Your task to perform on an android device: find which apps use the phone's location Image 0: 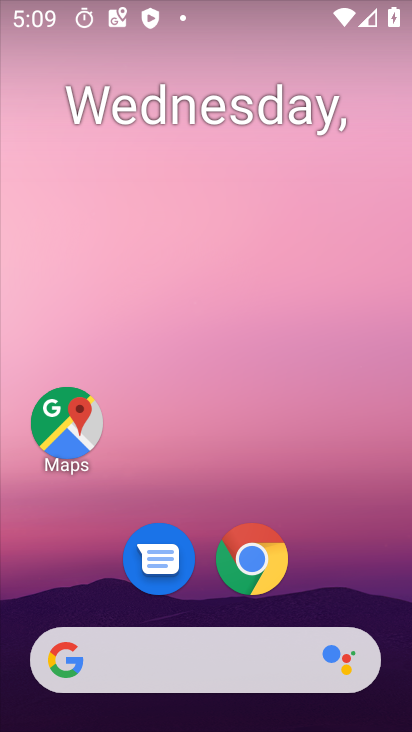
Step 0: drag from (330, 565) to (255, 86)
Your task to perform on an android device: find which apps use the phone's location Image 1: 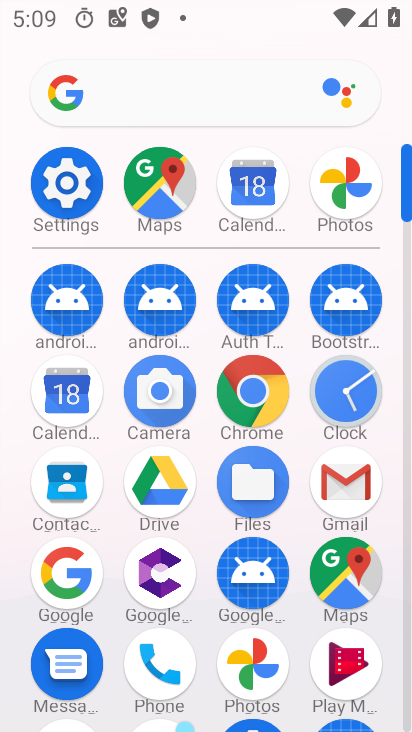
Step 1: click (68, 183)
Your task to perform on an android device: find which apps use the phone's location Image 2: 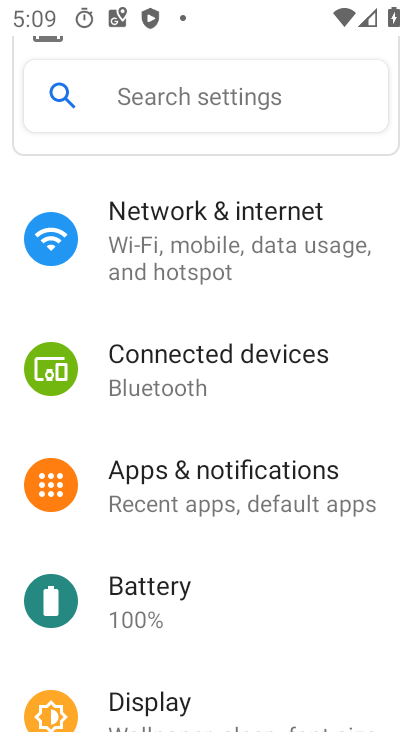
Step 2: drag from (262, 615) to (222, 134)
Your task to perform on an android device: find which apps use the phone's location Image 3: 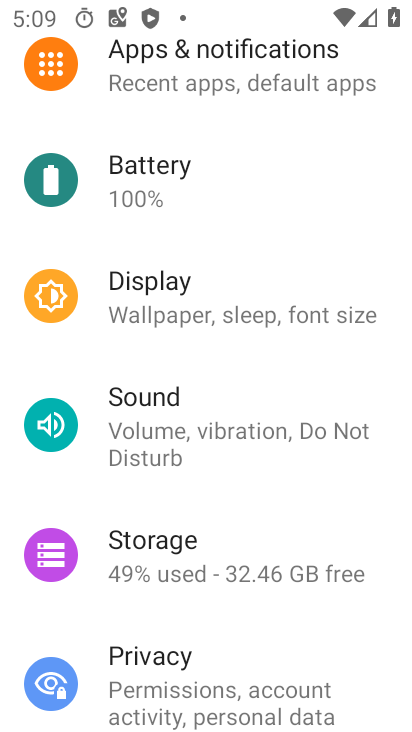
Step 3: drag from (291, 608) to (257, 167)
Your task to perform on an android device: find which apps use the phone's location Image 4: 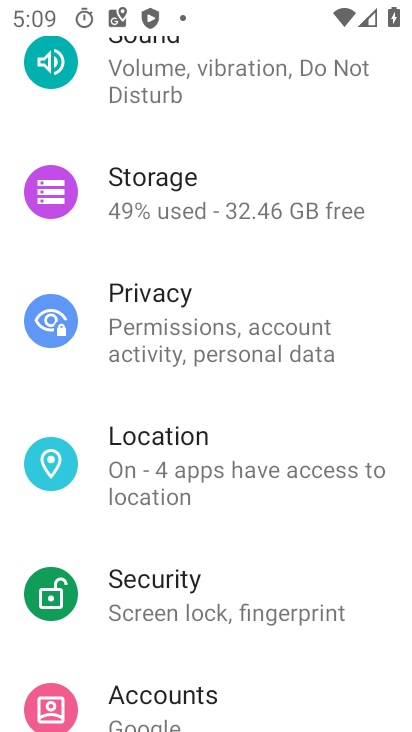
Step 4: click (223, 435)
Your task to perform on an android device: find which apps use the phone's location Image 5: 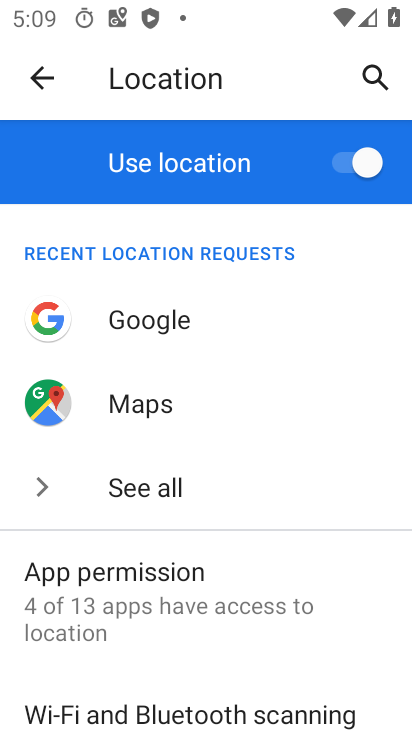
Step 5: drag from (238, 659) to (224, 201)
Your task to perform on an android device: find which apps use the phone's location Image 6: 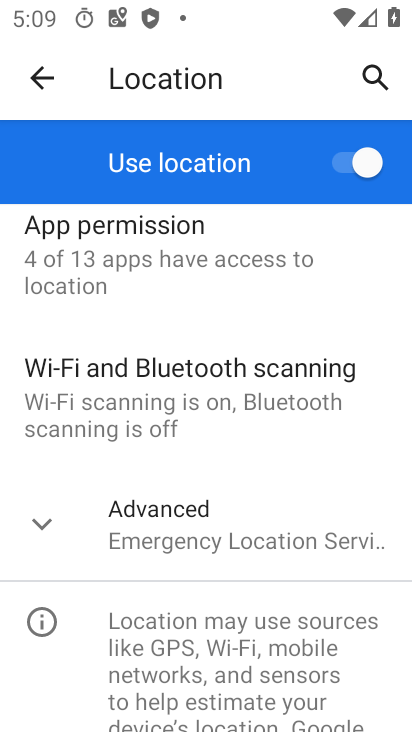
Step 6: click (189, 263)
Your task to perform on an android device: find which apps use the phone's location Image 7: 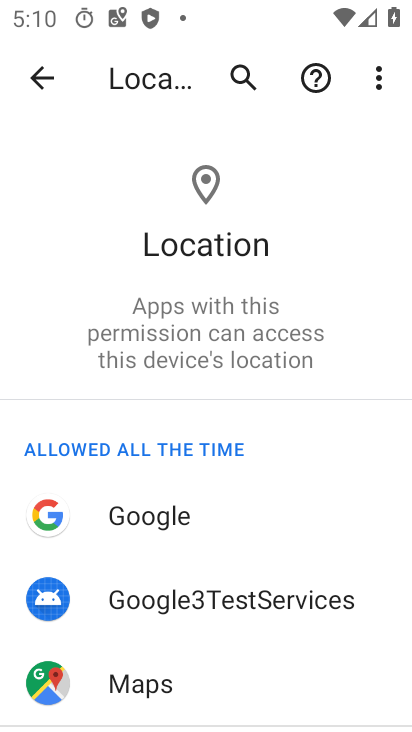
Step 7: task complete